Your task to perform on an android device: Open Youtube and go to "Your channel" Image 0: 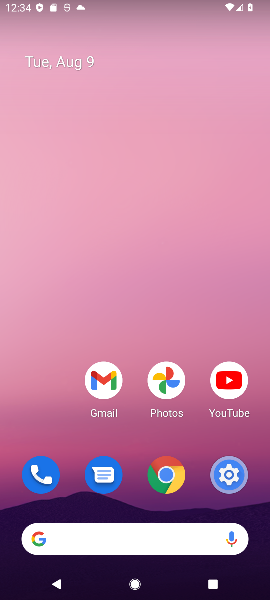
Step 0: click (239, 381)
Your task to perform on an android device: Open Youtube and go to "Your channel" Image 1: 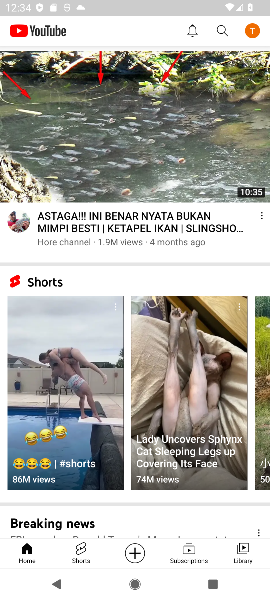
Step 1: click (254, 28)
Your task to perform on an android device: Open Youtube and go to "Your channel" Image 2: 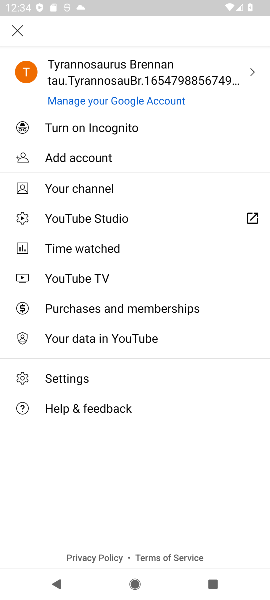
Step 2: click (83, 186)
Your task to perform on an android device: Open Youtube and go to "Your channel" Image 3: 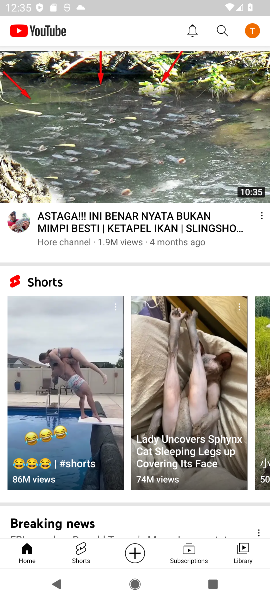
Step 3: task complete